Your task to perform on an android device: choose inbox layout in the gmail app Image 0: 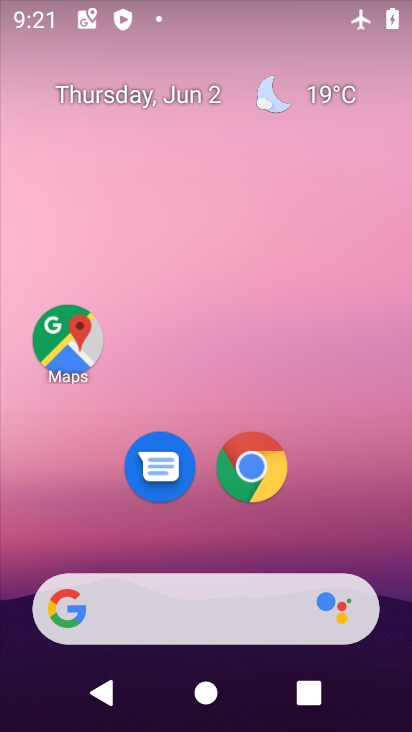
Step 0: drag from (213, 552) to (201, 171)
Your task to perform on an android device: choose inbox layout in the gmail app Image 1: 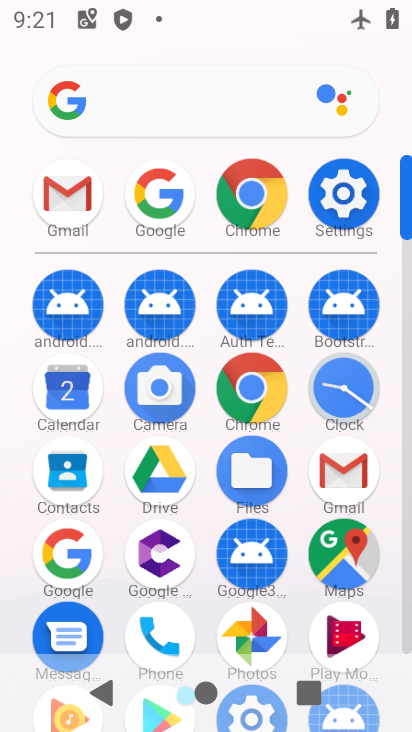
Step 1: click (64, 202)
Your task to perform on an android device: choose inbox layout in the gmail app Image 2: 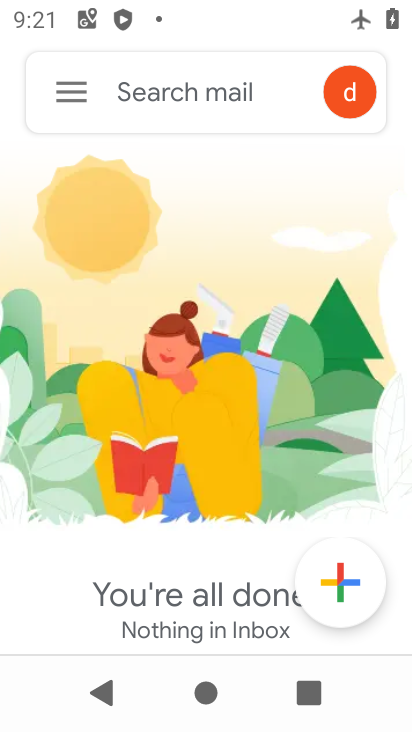
Step 2: click (73, 94)
Your task to perform on an android device: choose inbox layout in the gmail app Image 3: 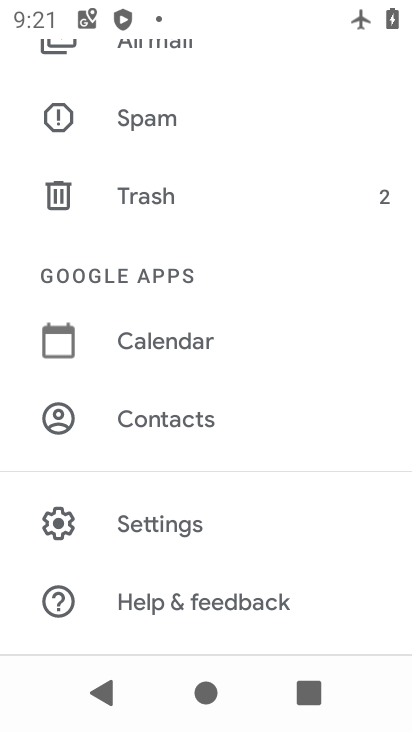
Step 3: click (137, 519)
Your task to perform on an android device: choose inbox layout in the gmail app Image 4: 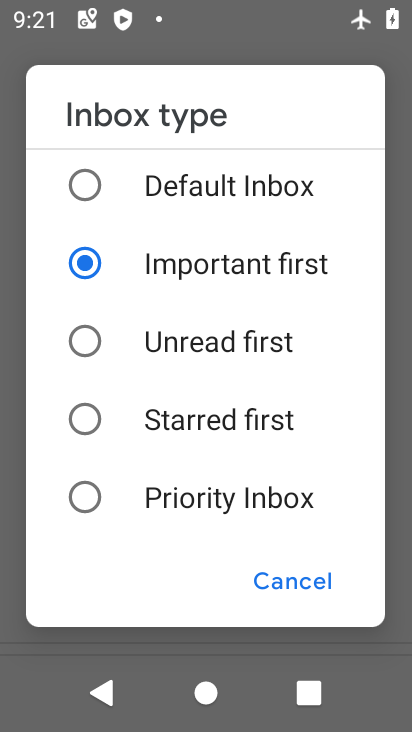
Step 4: click (85, 341)
Your task to perform on an android device: choose inbox layout in the gmail app Image 5: 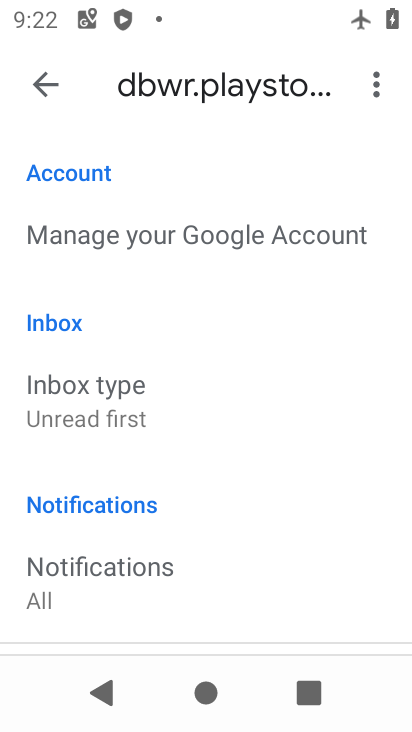
Step 5: task complete